Your task to perform on an android device: check android version Image 0: 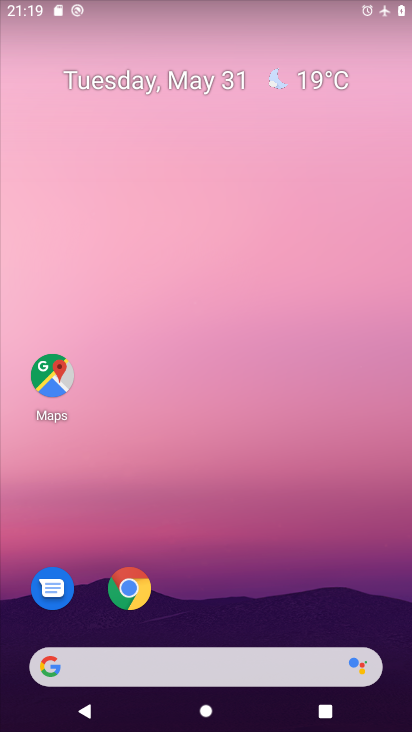
Step 0: press home button
Your task to perform on an android device: check android version Image 1: 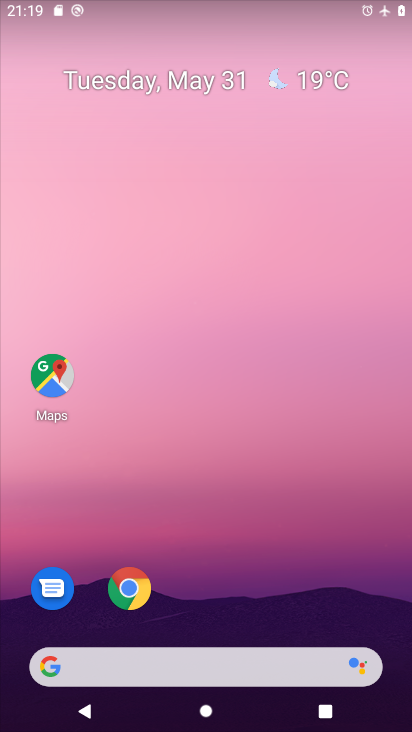
Step 1: drag from (151, 666) to (249, 150)
Your task to perform on an android device: check android version Image 2: 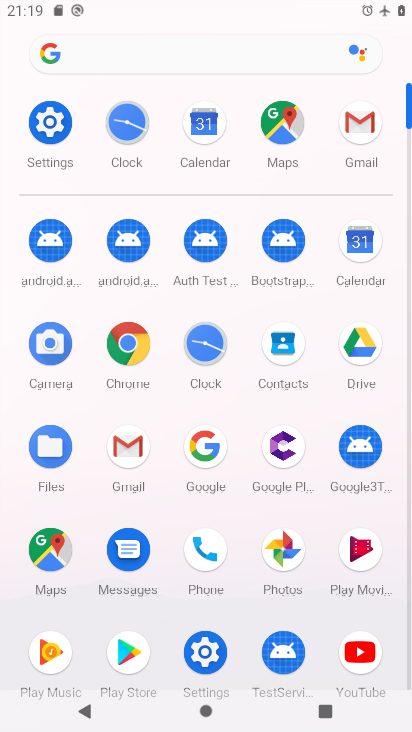
Step 2: click (51, 123)
Your task to perform on an android device: check android version Image 3: 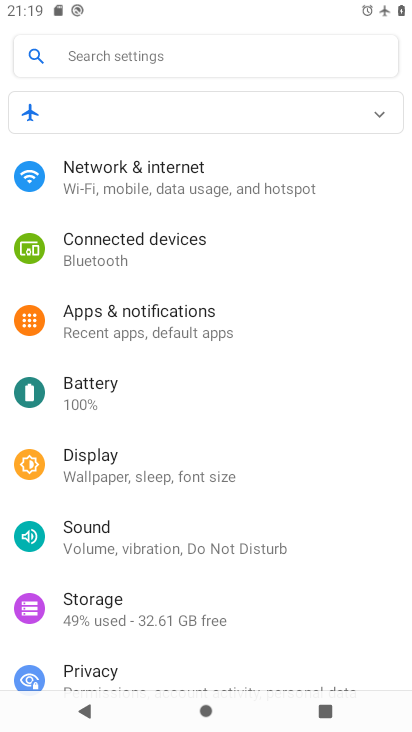
Step 3: drag from (219, 671) to (309, 58)
Your task to perform on an android device: check android version Image 4: 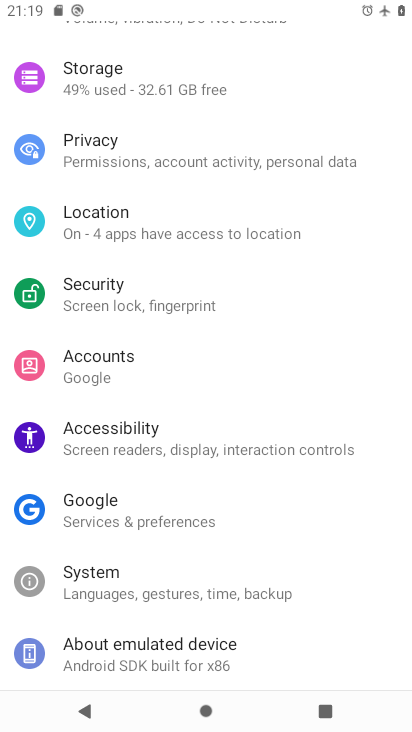
Step 4: click (115, 645)
Your task to perform on an android device: check android version Image 5: 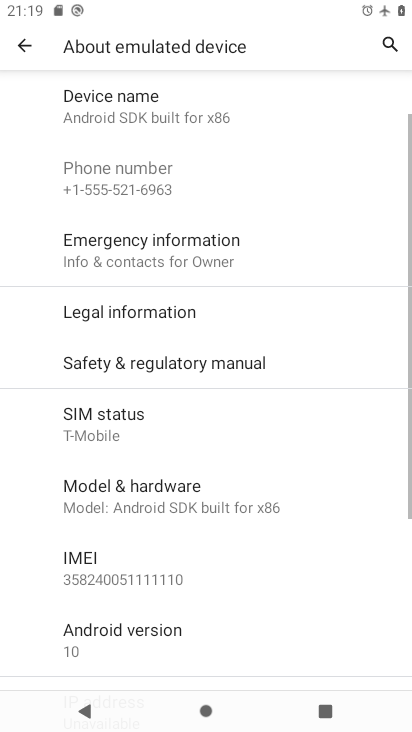
Step 5: click (166, 622)
Your task to perform on an android device: check android version Image 6: 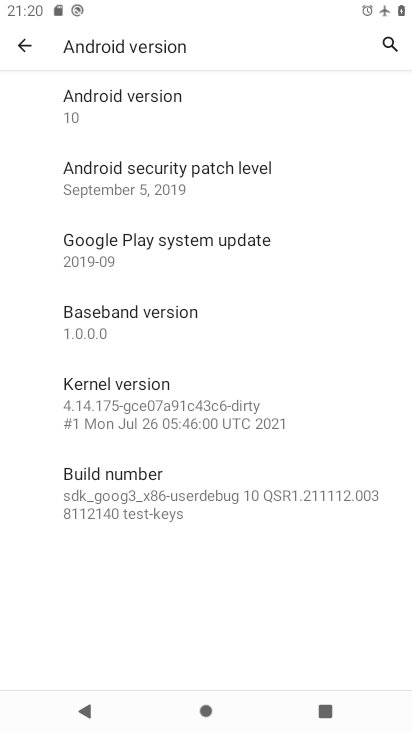
Step 6: task complete